Your task to perform on an android device: Open the calendar app, open the side menu, and click the "Day" option Image 0: 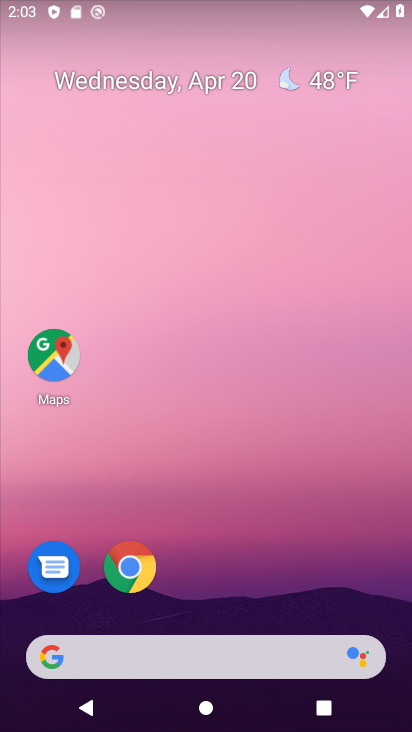
Step 0: drag from (290, 560) to (251, 192)
Your task to perform on an android device: Open the calendar app, open the side menu, and click the "Day" option Image 1: 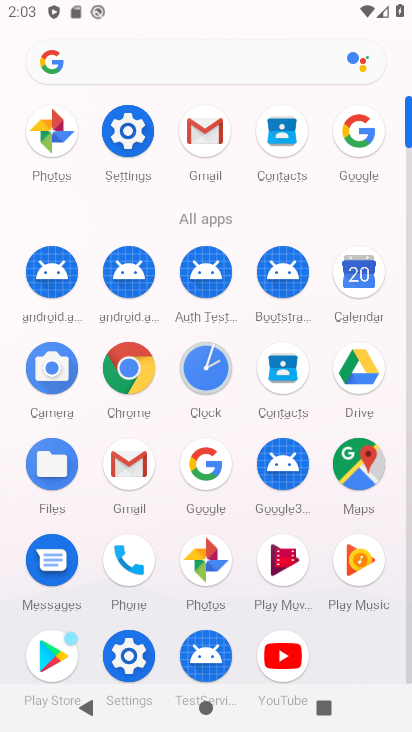
Step 1: click (356, 282)
Your task to perform on an android device: Open the calendar app, open the side menu, and click the "Day" option Image 2: 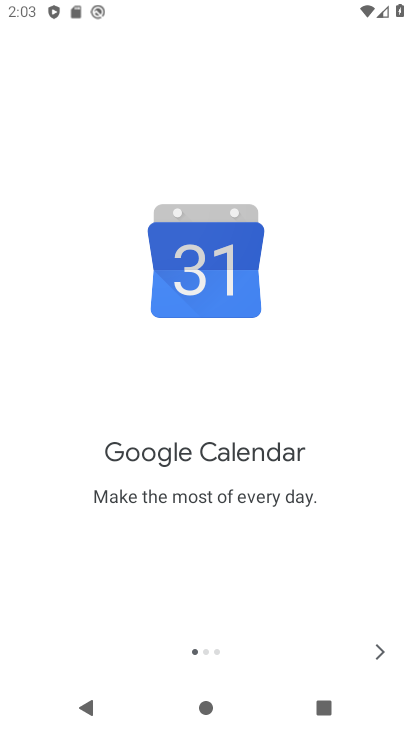
Step 2: click (370, 655)
Your task to perform on an android device: Open the calendar app, open the side menu, and click the "Day" option Image 3: 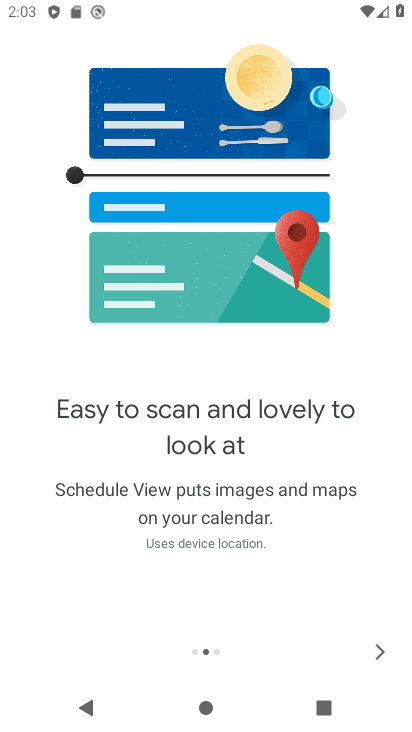
Step 3: click (376, 650)
Your task to perform on an android device: Open the calendar app, open the side menu, and click the "Day" option Image 4: 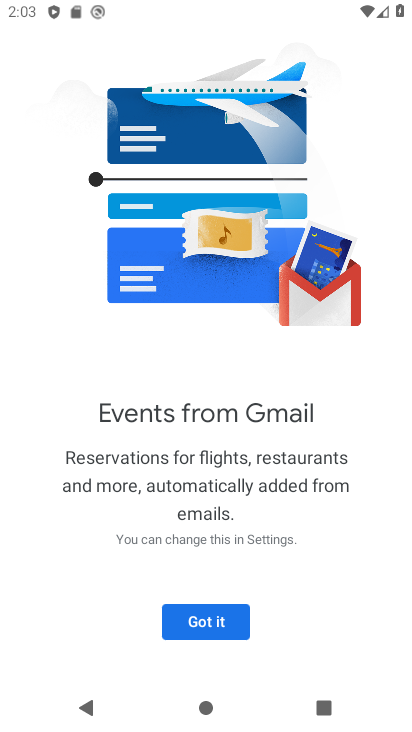
Step 4: click (207, 619)
Your task to perform on an android device: Open the calendar app, open the side menu, and click the "Day" option Image 5: 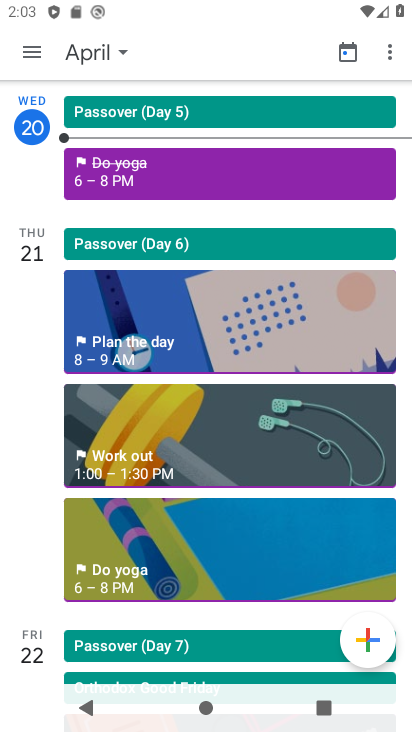
Step 5: click (36, 55)
Your task to perform on an android device: Open the calendar app, open the side menu, and click the "Day" option Image 6: 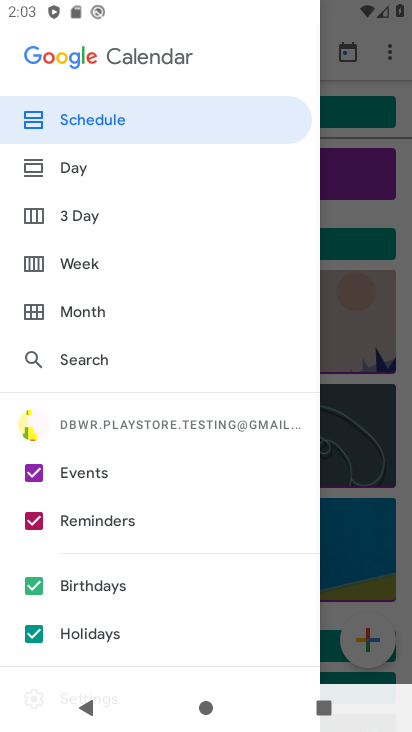
Step 6: click (81, 170)
Your task to perform on an android device: Open the calendar app, open the side menu, and click the "Day" option Image 7: 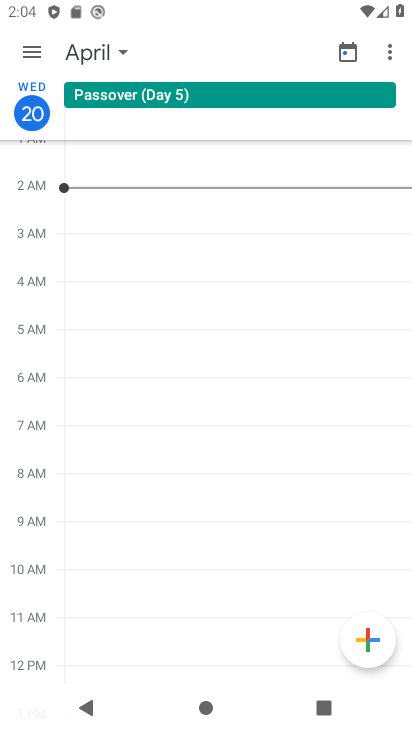
Step 7: task complete